Your task to perform on an android device: See recent photos Image 0: 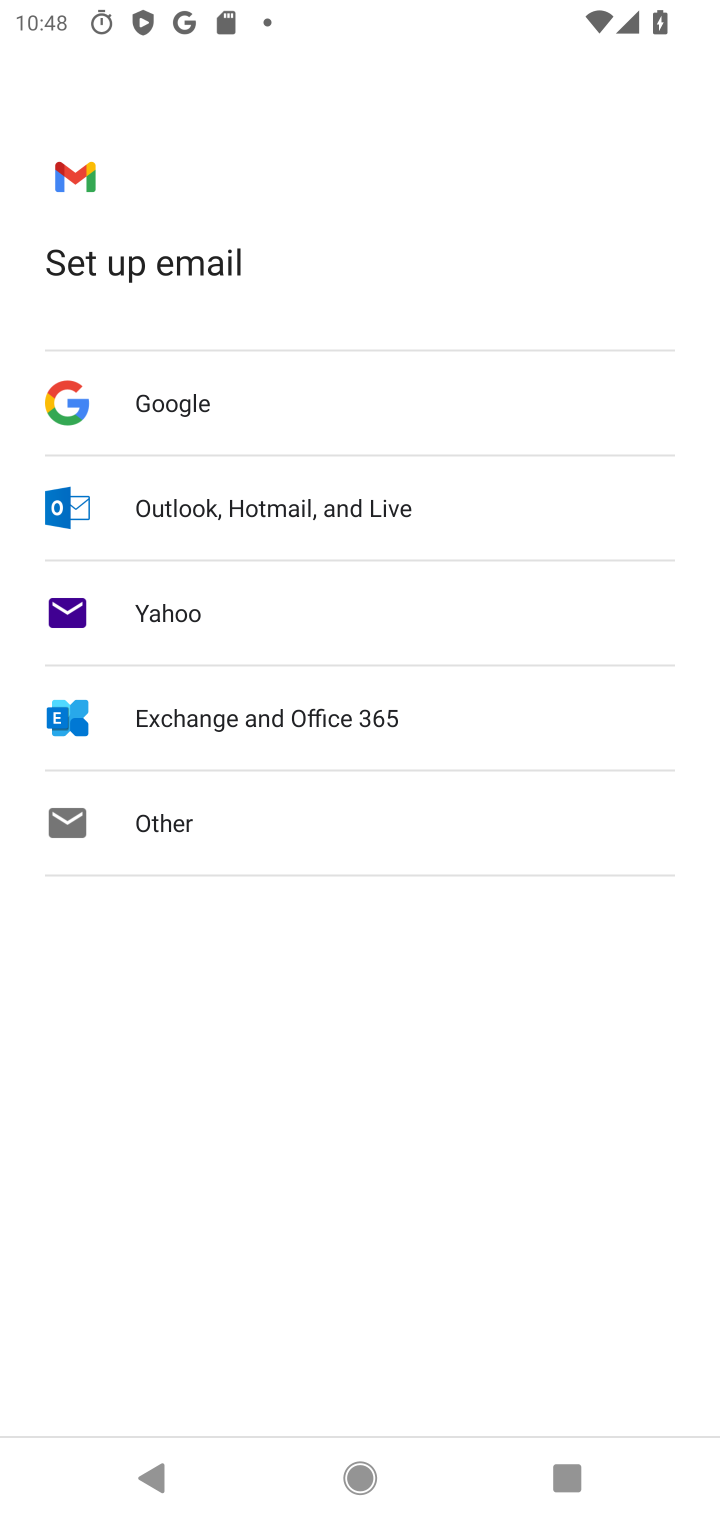
Step 0: press home button
Your task to perform on an android device: See recent photos Image 1: 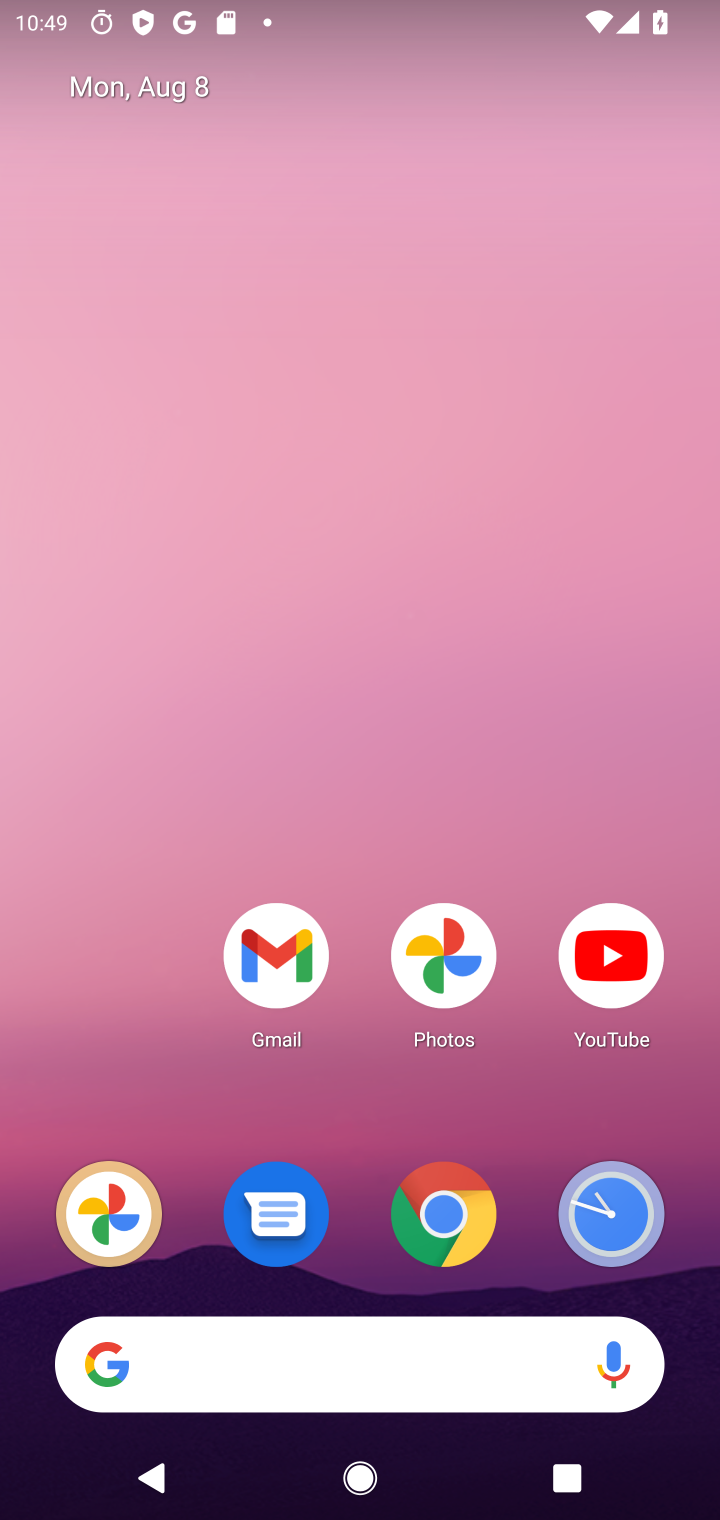
Step 1: click (439, 973)
Your task to perform on an android device: See recent photos Image 2: 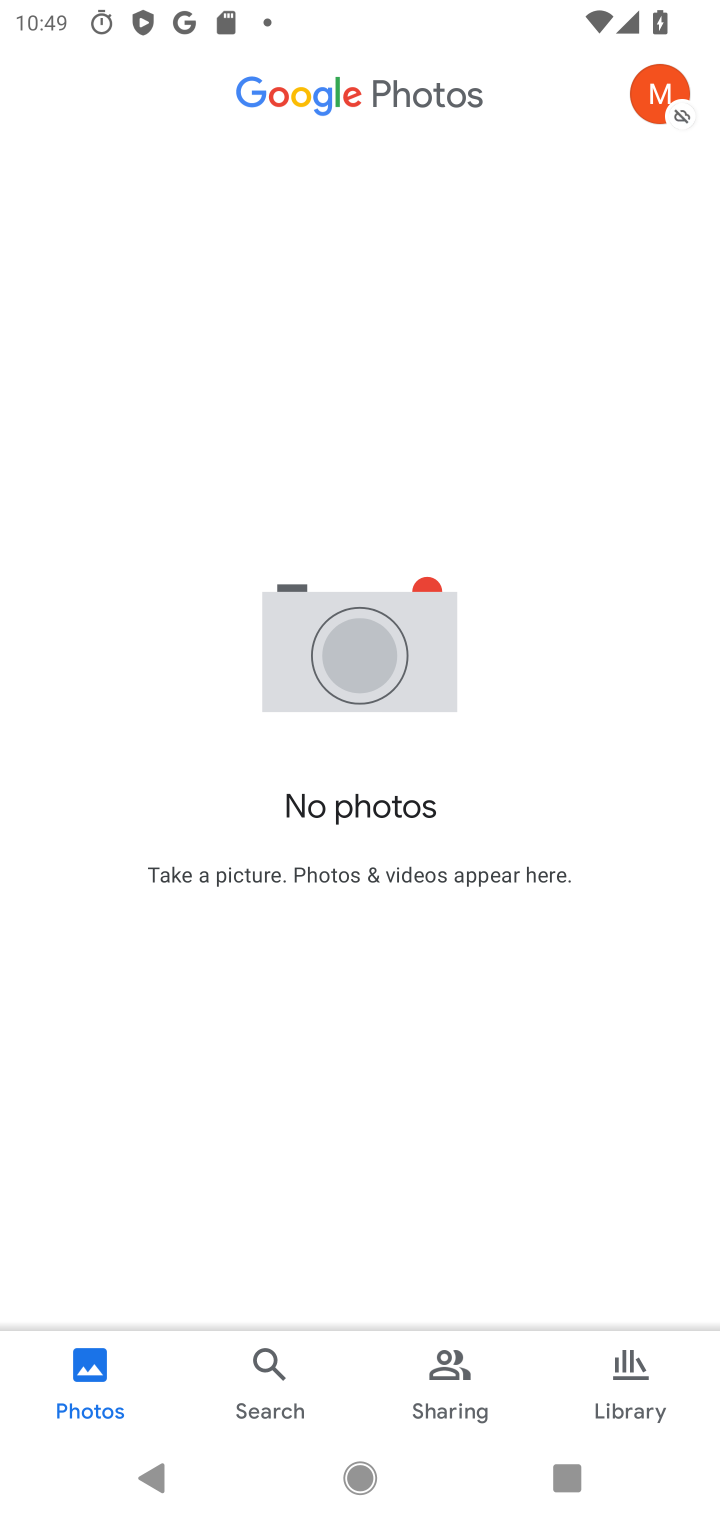
Step 2: click (661, 85)
Your task to perform on an android device: See recent photos Image 3: 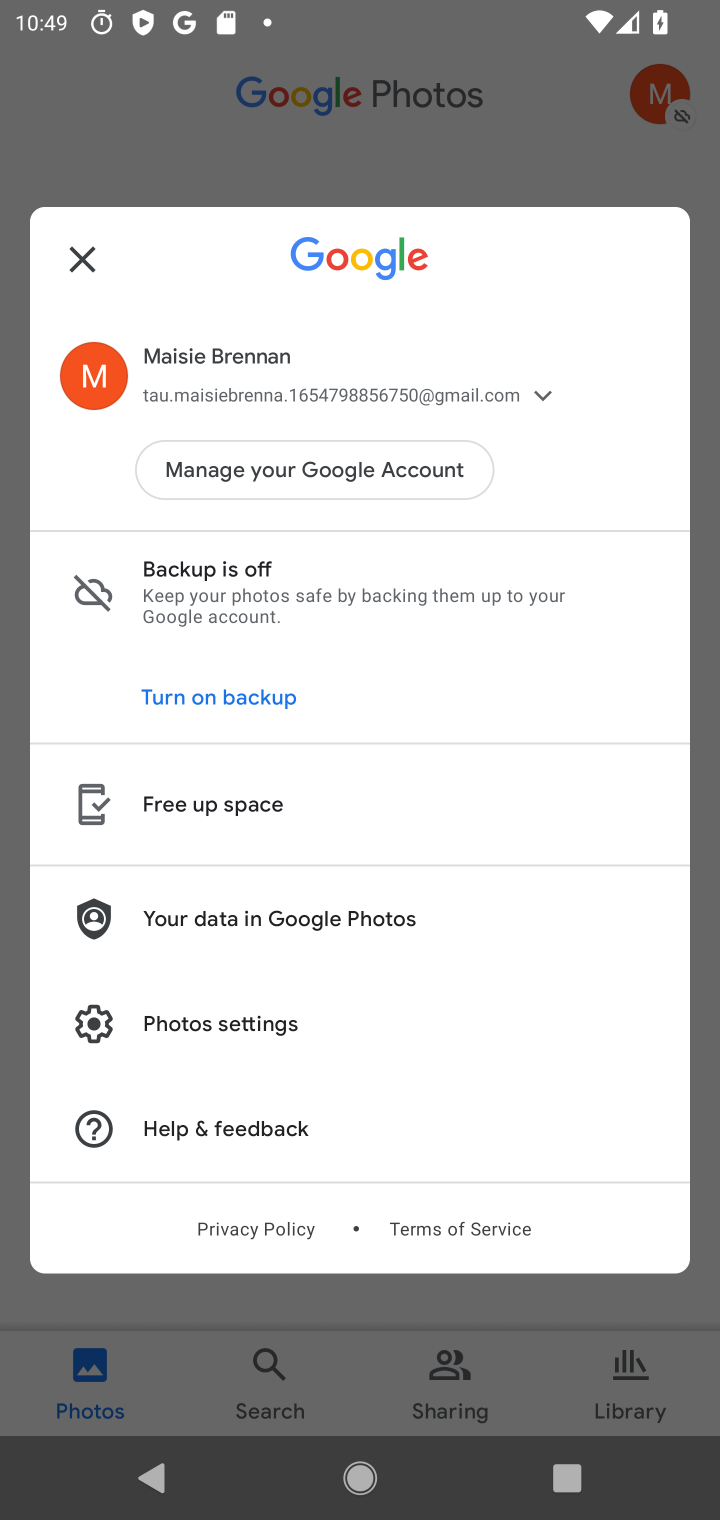
Step 3: click (354, 131)
Your task to perform on an android device: See recent photos Image 4: 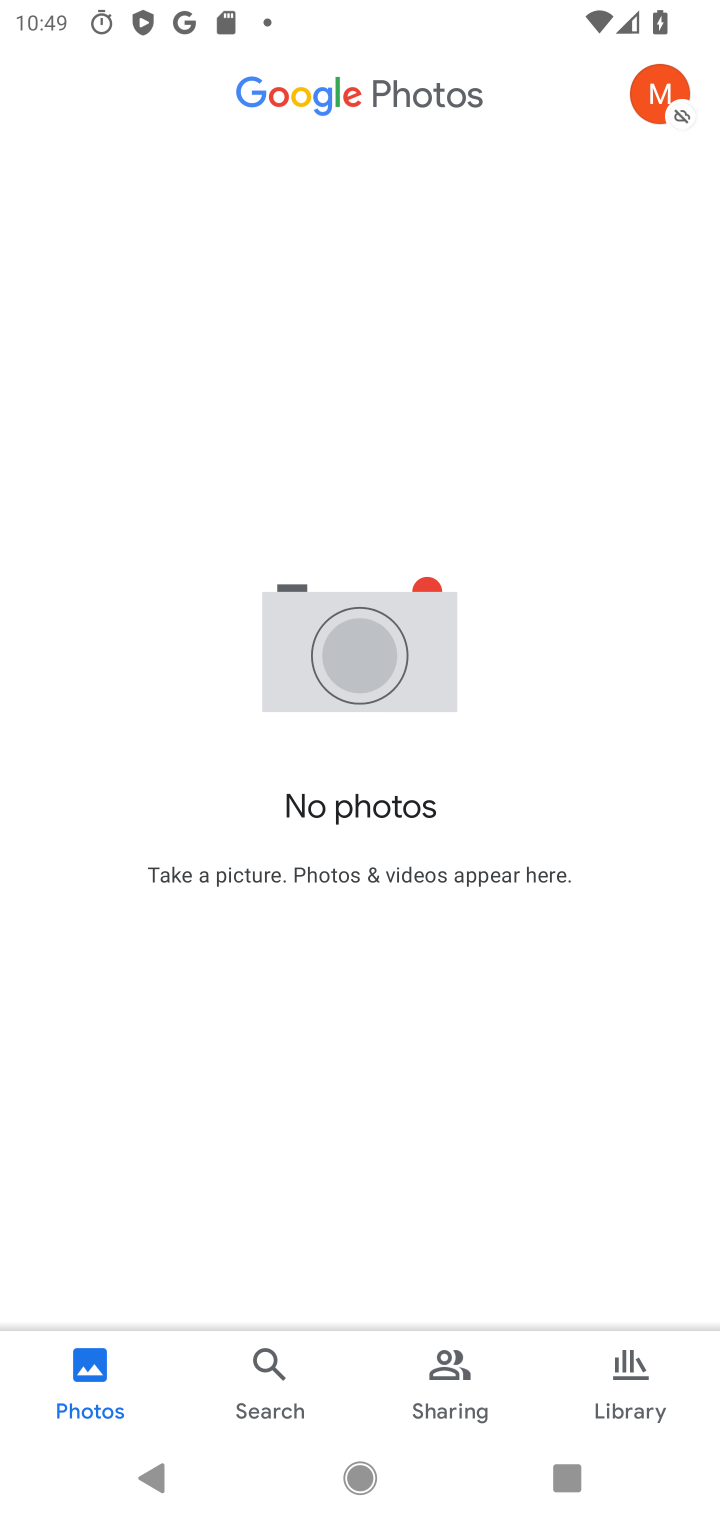
Step 4: click (67, 257)
Your task to perform on an android device: See recent photos Image 5: 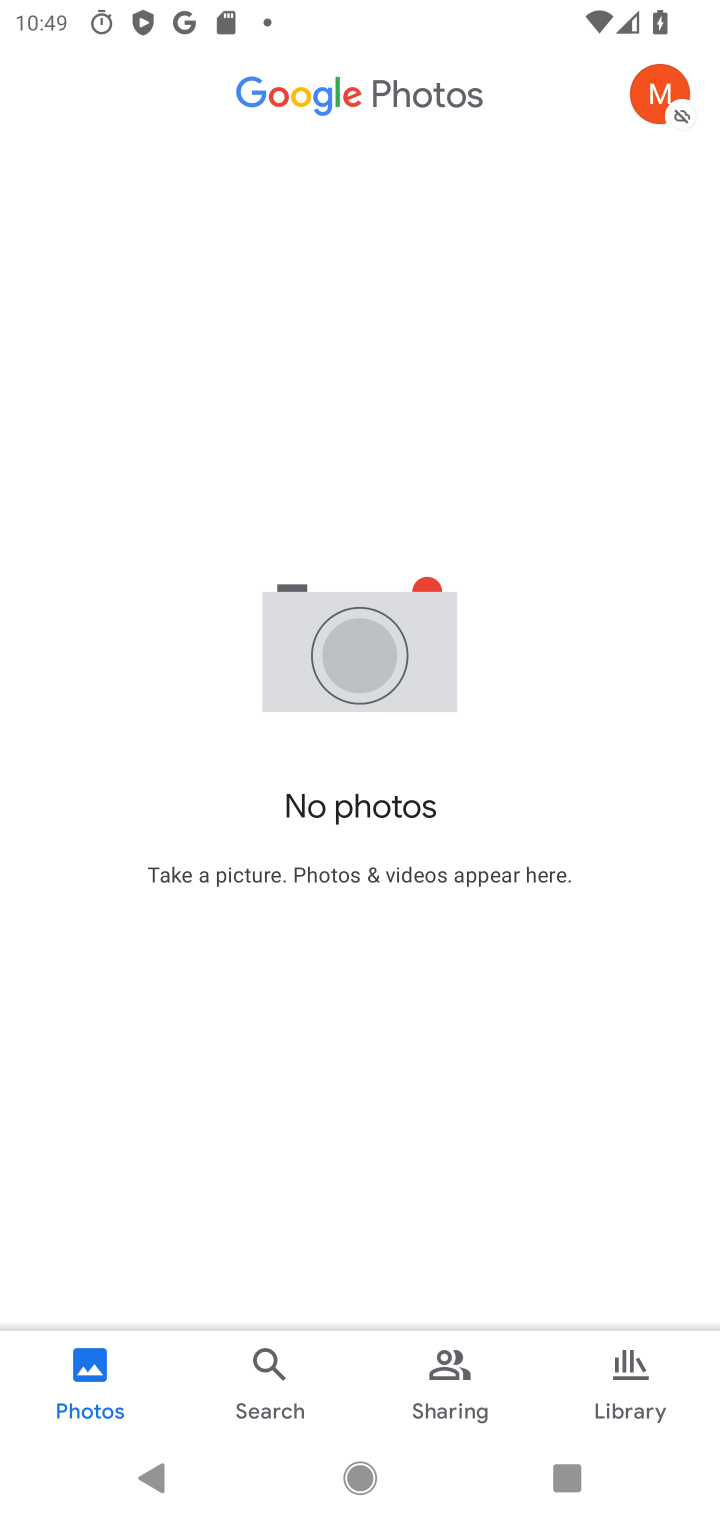
Step 5: task complete